Your task to perform on an android device: turn off priority inbox in the gmail app Image 0: 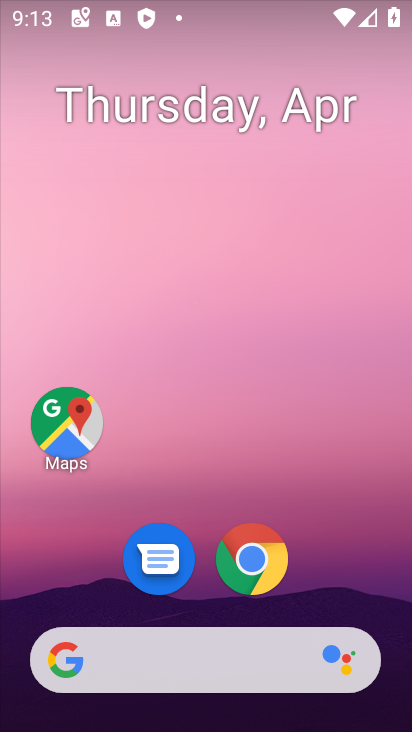
Step 0: drag from (216, 666) to (307, 54)
Your task to perform on an android device: turn off priority inbox in the gmail app Image 1: 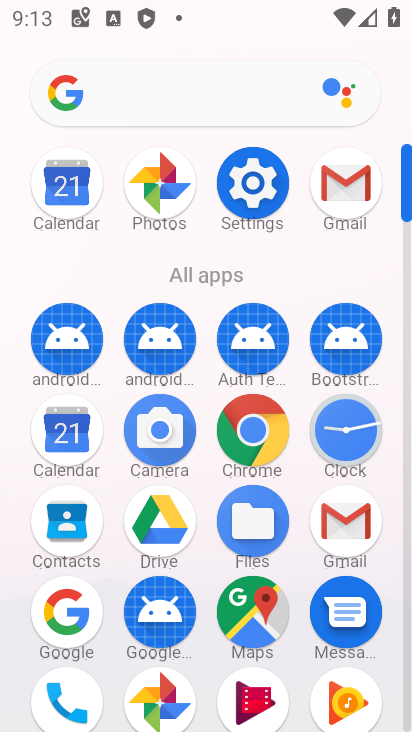
Step 1: click (351, 176)
Your task to perform on an android device: turn off priority inbox in the gmail app Image 2: 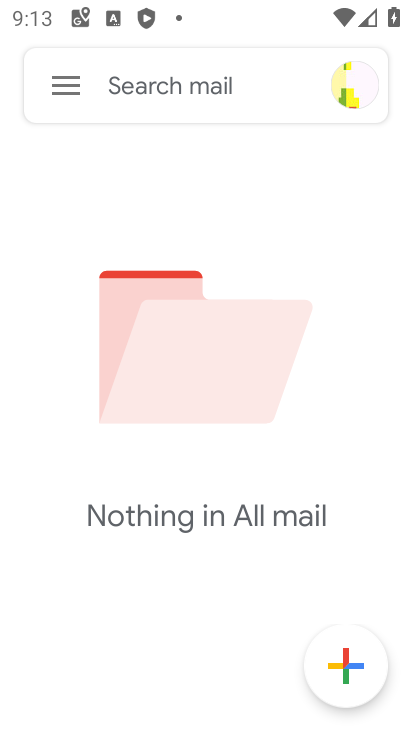
Step 2: click (61, 75)
Your task to perform on an android device: turn off priority inbox in the gmail app Image 3: 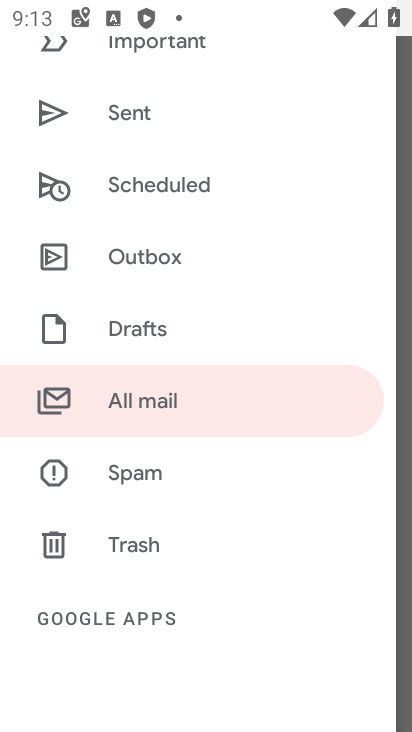
Step 3: drag from (233, 545) to (233, 92)
Your task to perform on an android device: turn off priority inbox in the gmail app Image 4: 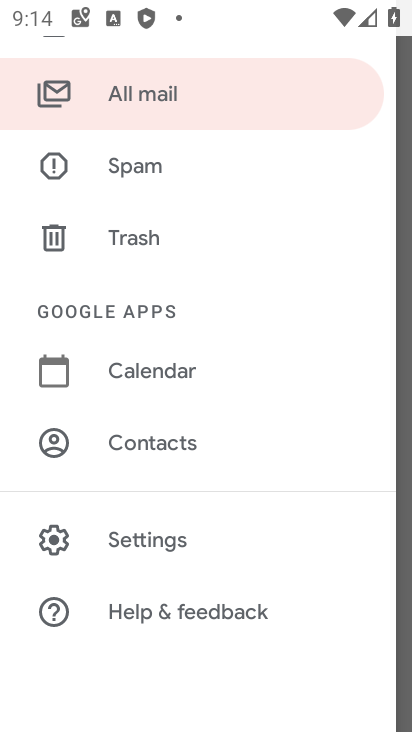
Step 4: click (201, 539)
Your task to perform on an android device: turn off priority inbox in the gmail app Image 5: 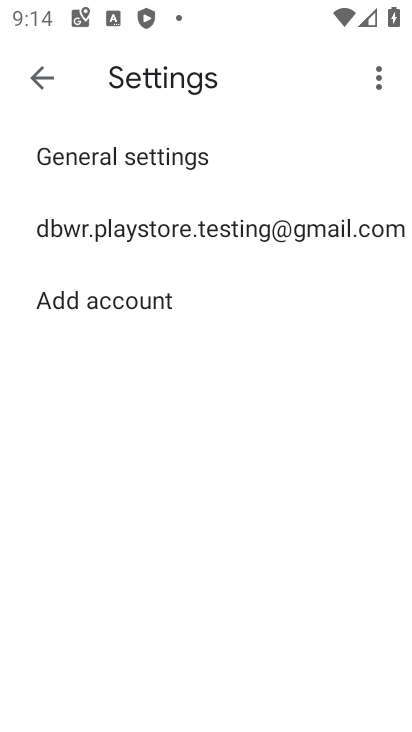
Step 5: click (227, 231)
Your task to perform on an android device: turn off priority inbox in the gmail app Image 6: 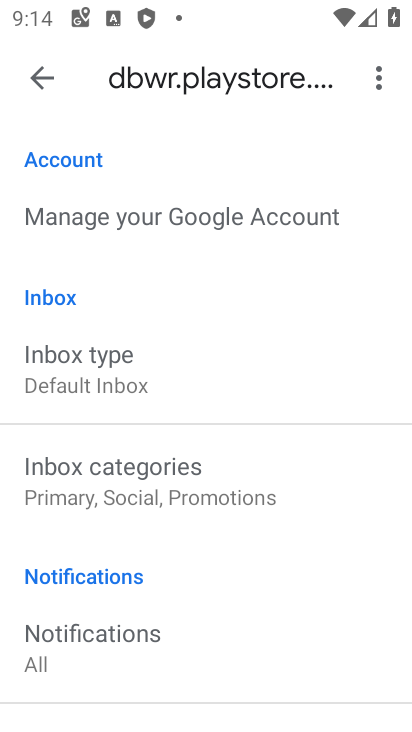
Step 6: click (103, 361)
Your task to perform on an android device: turn off priority inbox in the gmail app Image 7: 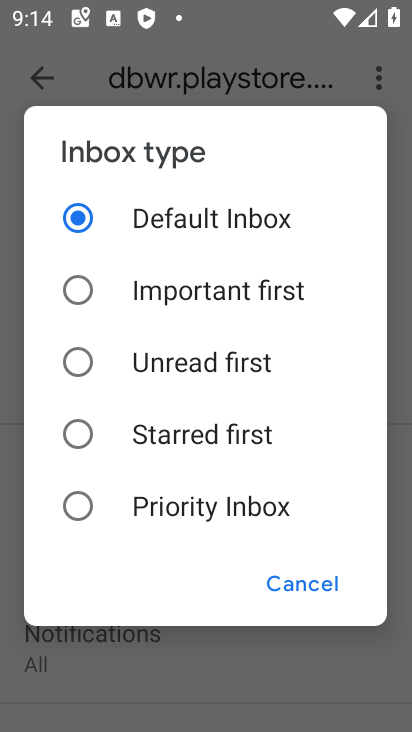
Step 7: task complete